Your task to perform on an android device: toggle airplane mode Image 0: 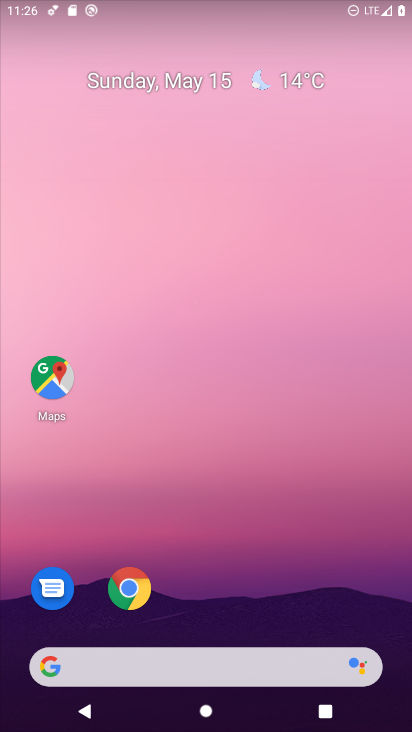
Step 0: drag from (243, 450) to (303, 31)
Your task to perform on an android device: toggle airplane mode Image 1: 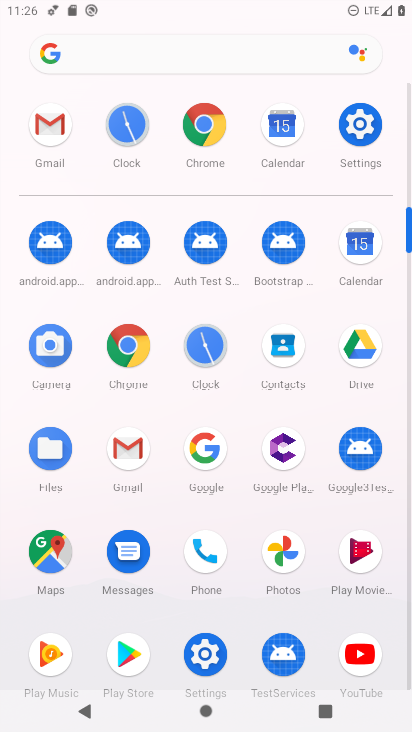
Step 1: click (365, 147)
Your task to perform on an android device: toggle airplane mode Image 2: 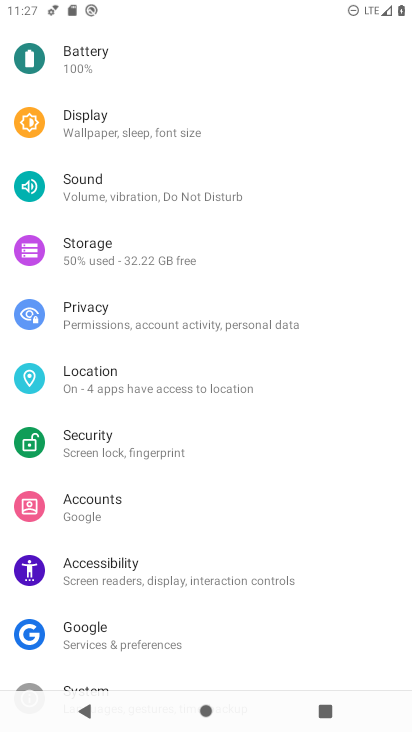
Step 2: drag from (215, 539) to (217, 573)
Your task to perform on an android device: toggle airplane mode Image 3: 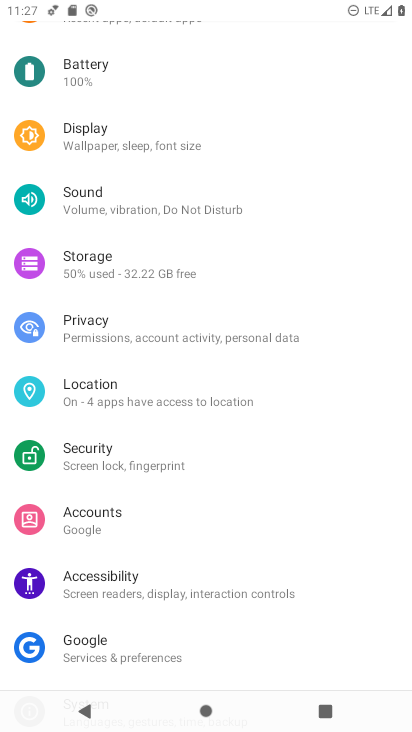
Step 3: drag from (171, 175) to (160, 628)
Your task to perform on an android device: toggle airplane mode Image 4: 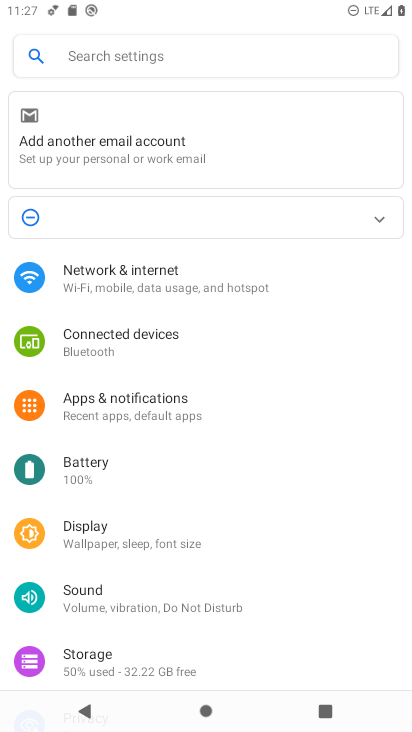
Step 4: click (162, 287)
Your task to perform on an android device: toggle airplane mode Image 5: 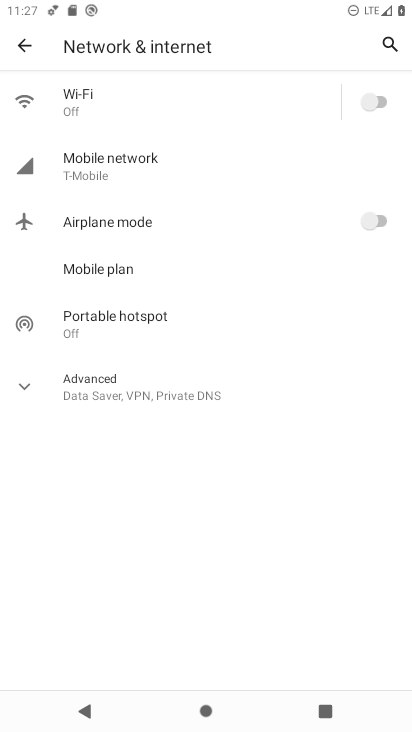
Step 5: click (387, 219)
Your task to perform on an android device: toggle airplane mode Image 6: 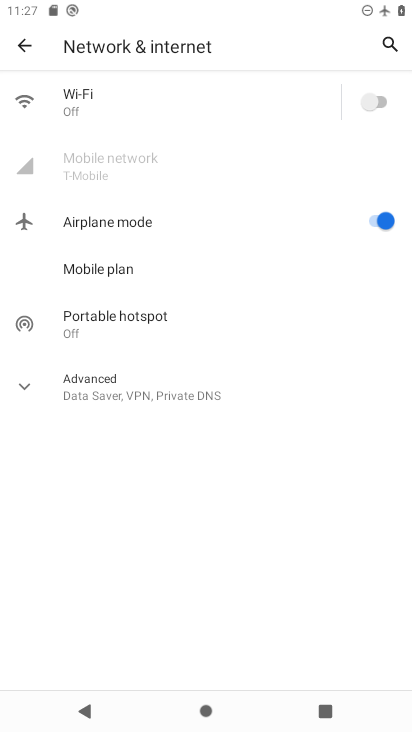
Step 6: task complete